Your task to perform on an android device: turn on translation in the chrome app Image 0: 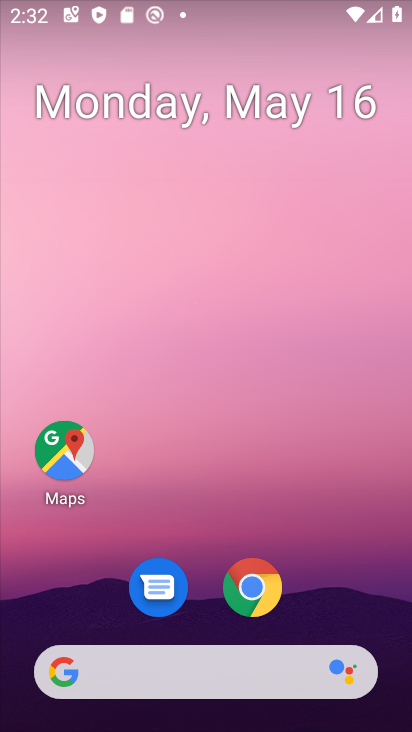
Step 0: drag from (371, 632) to (135, 105)
Your task to perform on an android device: turn on translation in the chrome app Image 1: 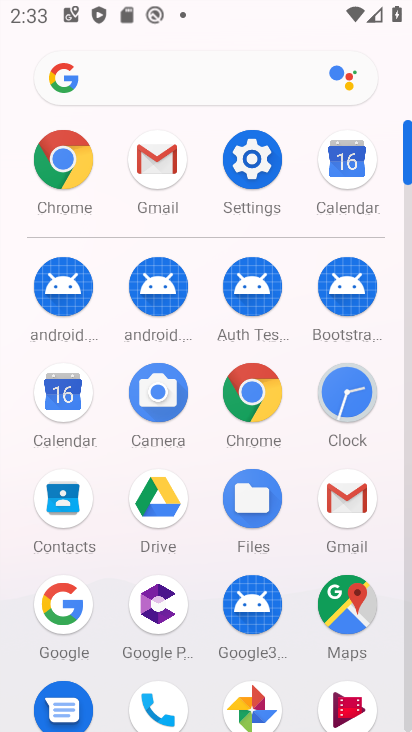
Step 1: click (60, 171)
Your task to perform on an android device: turn on translation in the chrome app Image 2: 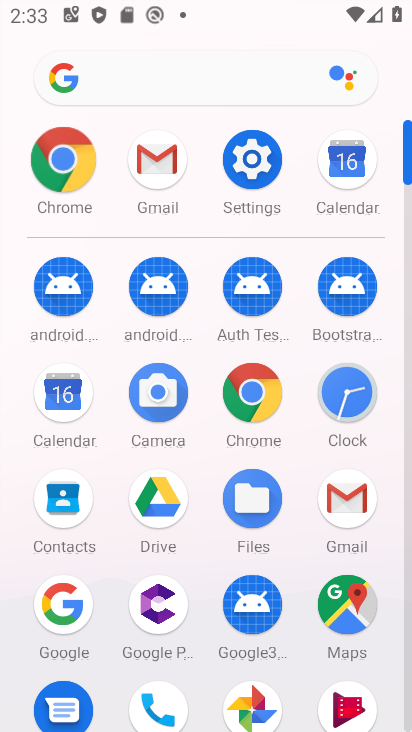
Step 2: click (60, 171)
Your task to perform on an android device: turn on translation in the chrome app Image 3: 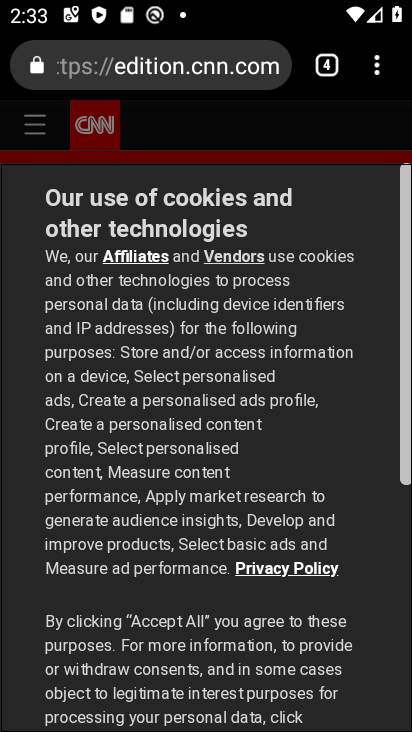
Step 3: click (379, 69)
Your task to perform on an android device: turn on translation in the chrome app Image 4: 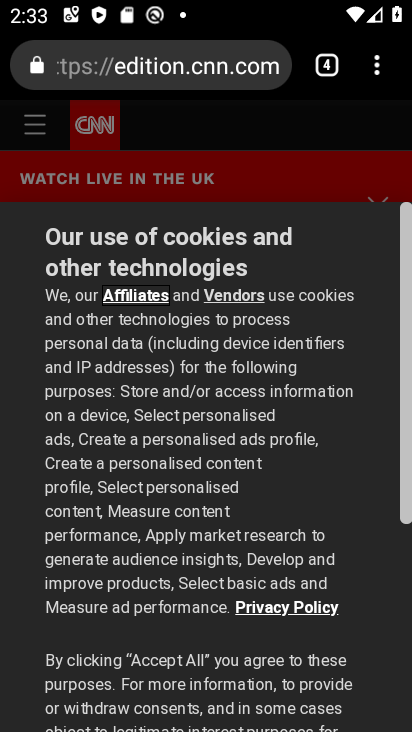
Step 4: drag from (382, 73) to (141, 632)
Your task to perform on an android device: turn on translation in the chrome app Image 5: 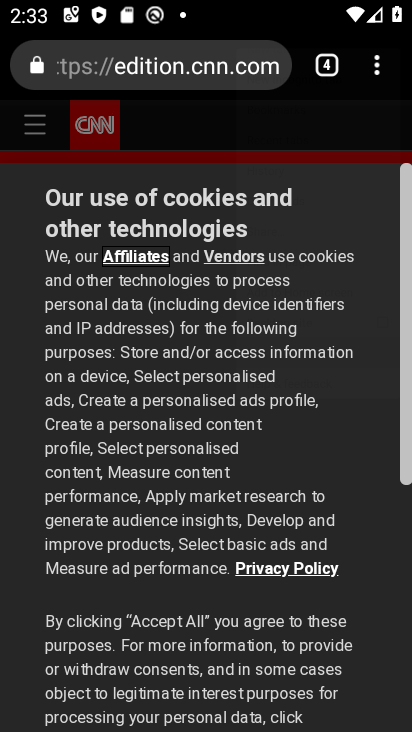
Step 5: click (141, 632)
Your task to perform on an android device: turn on translation in the chrome app Image 6: 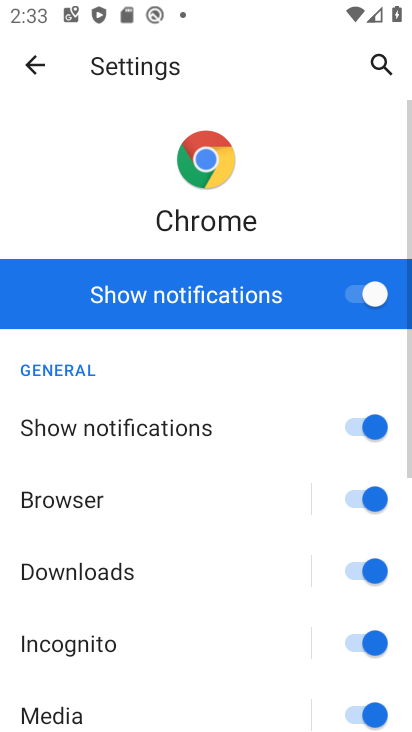
Step 6: click (37, 60)
Your task to perform on an android device: turn on translation in the chrome app Image 7: 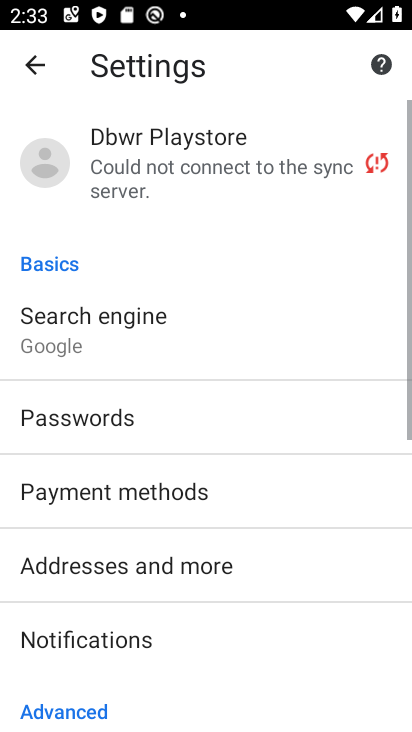
Step 7: drag from (192, 503) to (188, 60)
Your task to perform on an android device: turn on translation in the chrome app Image 8: 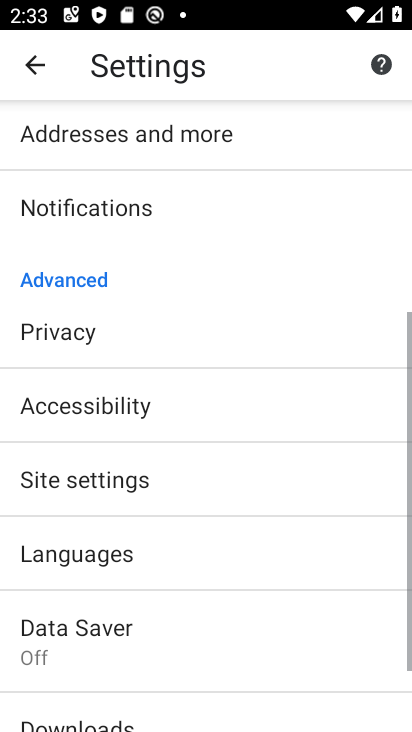
Step 8: drag from (258, 483) to (208, 86)
Your task to perform on an android device: turn on translation in the chrome app Image 9: 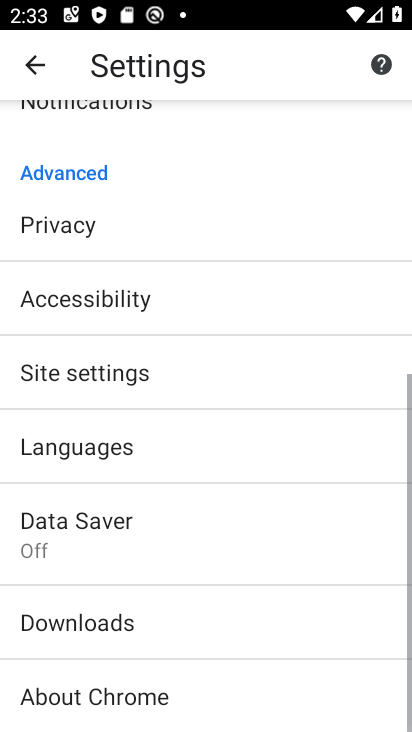
Step 9: drag from (204, 592) to (180, 124)
Your task to perform on an android device: turn on translation in the chrome app Image 10: 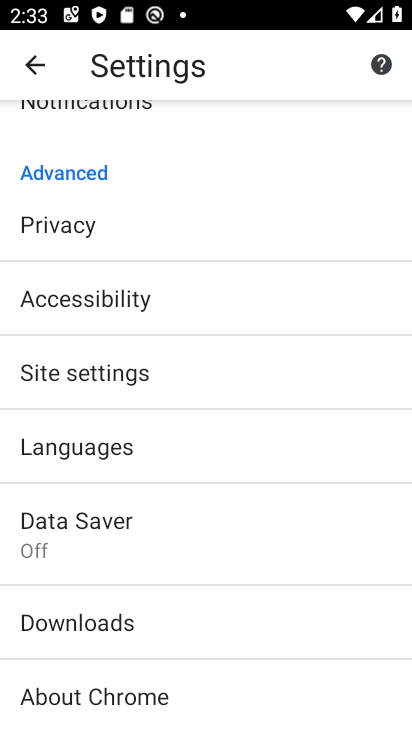
Step 10: click (77, 447)
Your task to perform on an android device: turn on translation in the chrome app Image 11: 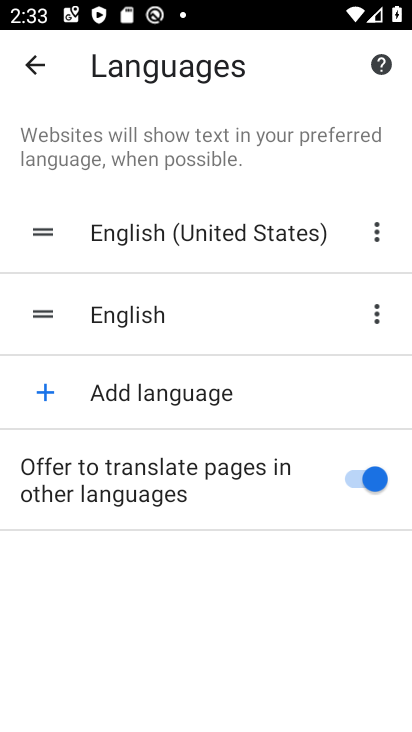
Step 11: click (363, 478)
Your task to perform on an android device: turn on translation in the chrome app Image 12: 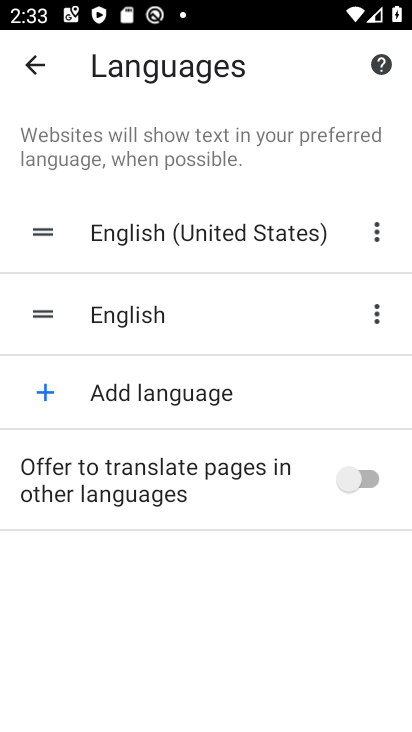
Step 12: task complete